Your task to perform on an android device: make emails show in primary in the gmail app Image 0: 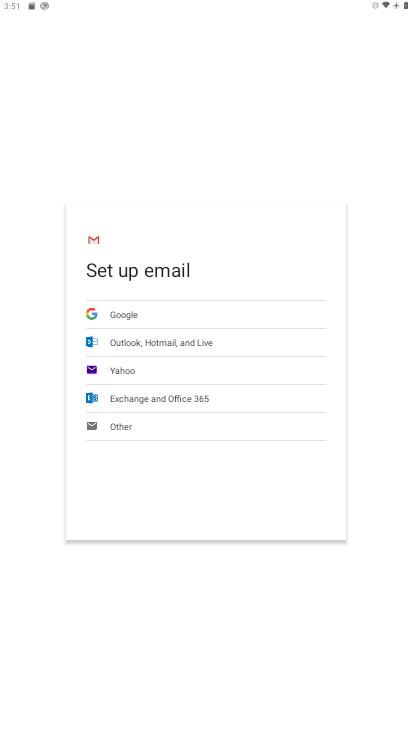
Step 0: press home button
Your task to perform on an android device: make emails show in primary in the gmail app Image 1: 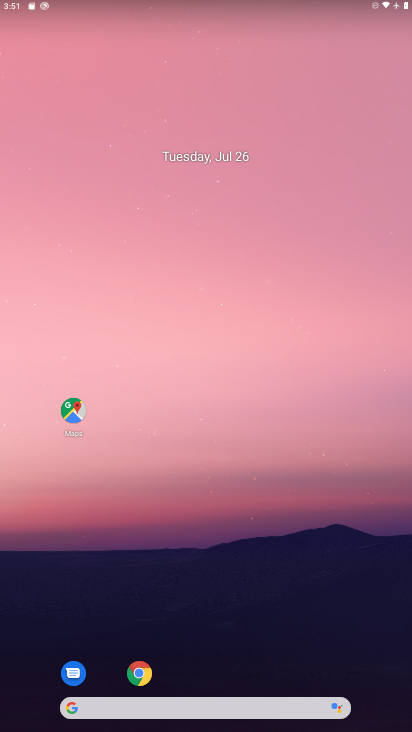
Step 1: drag from (231, 690) to (207, 68)
Your task to perform on an android device: make emails show in primary in the gmail app Image 2: 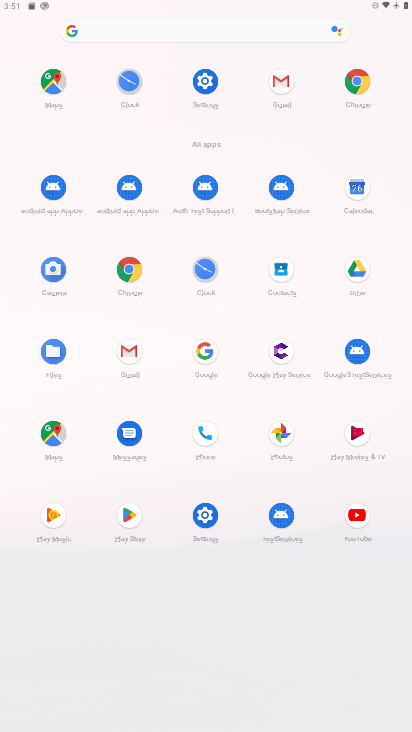
Step 2: click (277, 81)
Your task to perform on an android device: make emails show in primary in the gmail app Image 3: 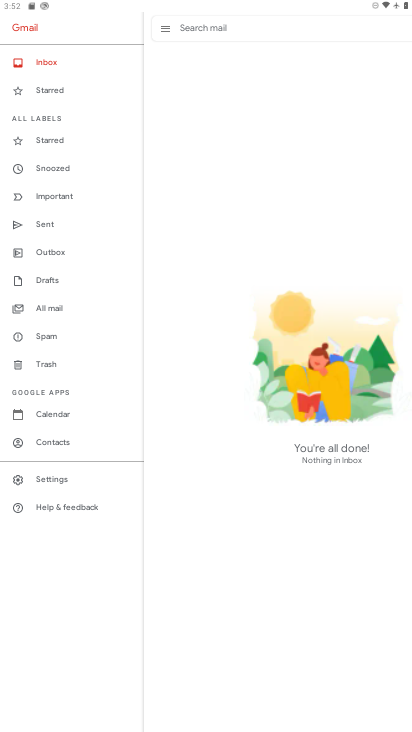
Step 3: click (40, 482)
Your task to perform on an android device: make emails show in primary in the gmail app Image 4: 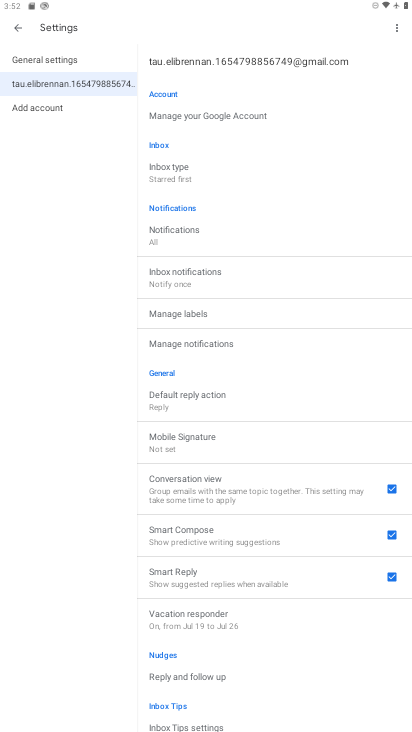
Step 4: task complete